Your task to perform on an android device: Go to Yahoo.com Image 0: 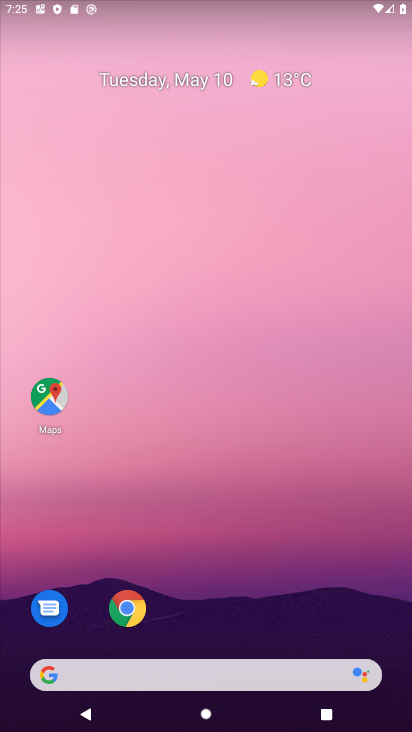
Step 0: click (127, 614)
Your task to perform on an android device: Go to Yahoo.com Image 1: 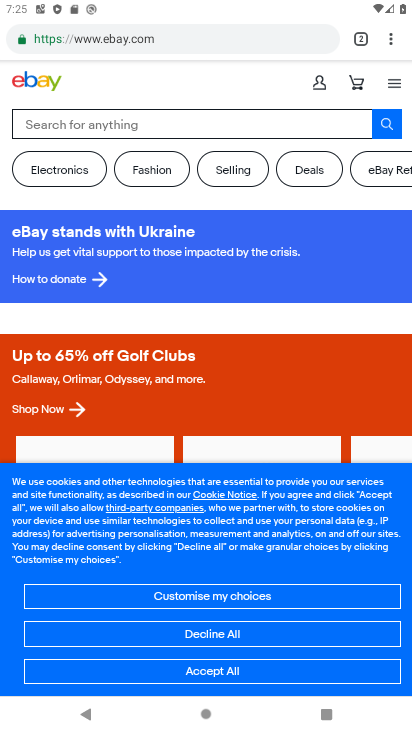
Step 1: click (364, 39)
Your task to perform on an android device: Go to Yahoo.com Image 2: 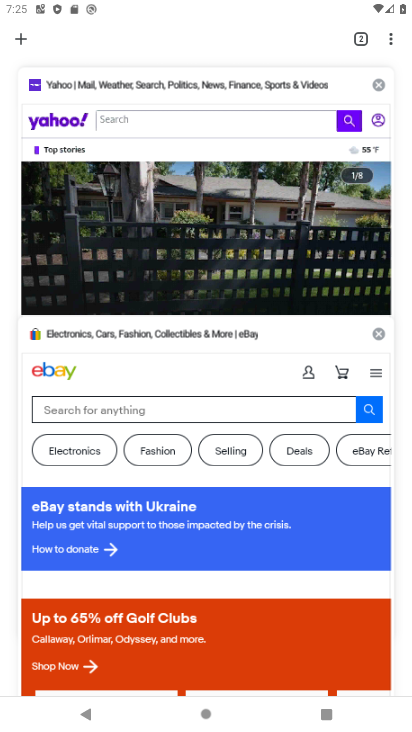
Step 2: click (199, 91)
Your task to perform on an android device: Go to Yahoo.com Image 3: 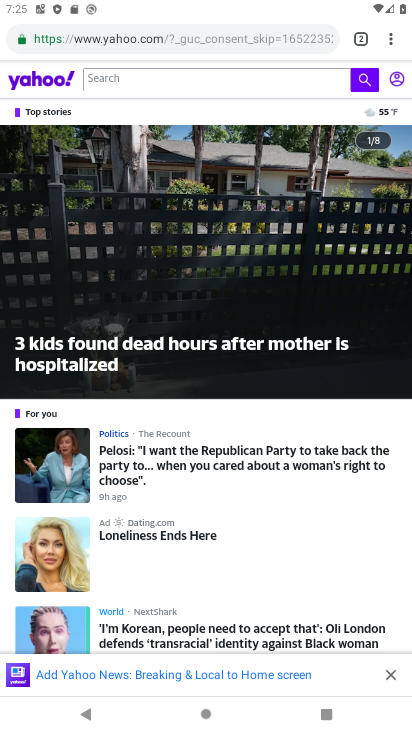
Step 3: task complete